Your task to perform on an android device: Toggle the flashlight Image 0: 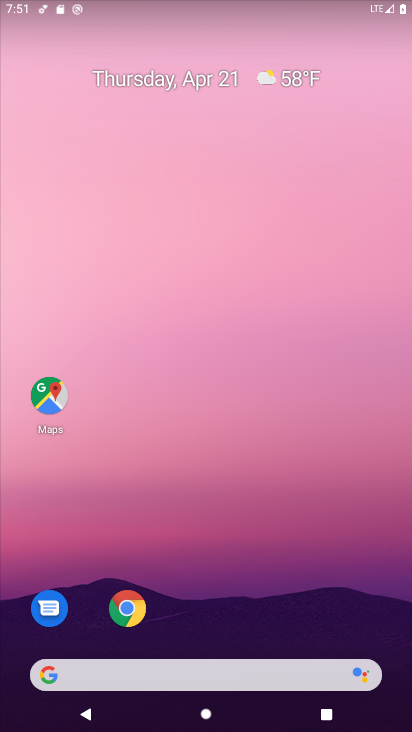
Step 0: drag from (279, 594) to (285, 83)
Your task to perform on an android device: Toggle the flashlight Image 1: 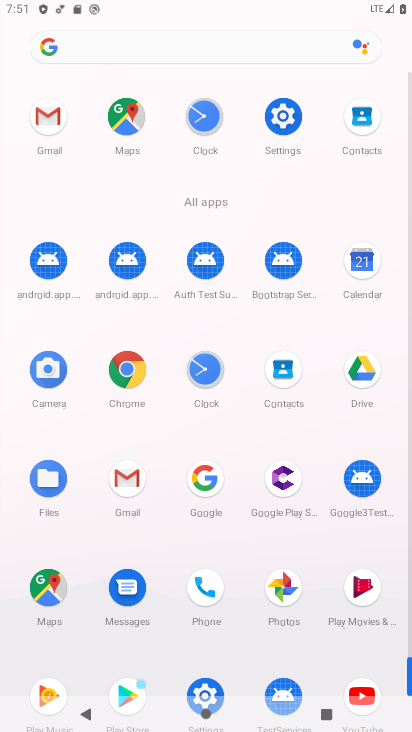
Step 1: click (280, 118)
Your task to perform on an android device: Toggle the flashlight Image 2: 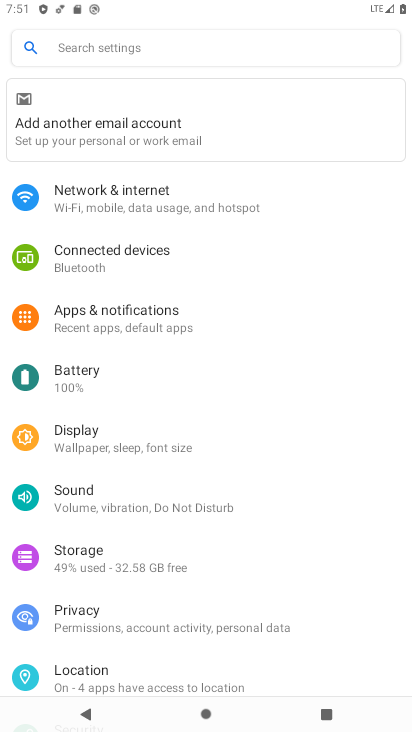
Step 2: click (277, 44)
Your task to perform on an android device: Toggle the flashlight Image 3: 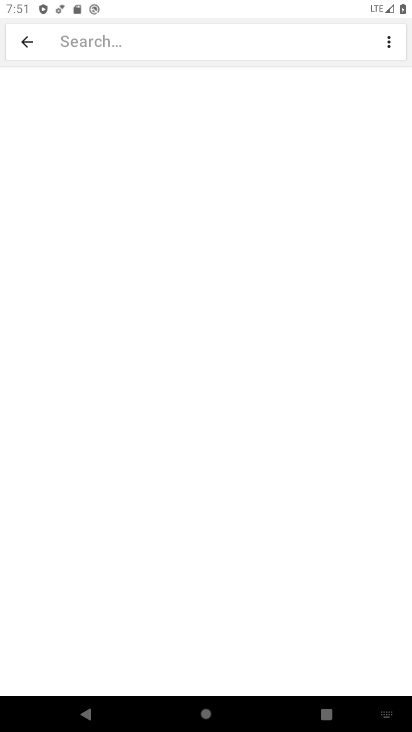
Step 3: type "Flashlight"
Your task to perform on an android device: Toggle the flashlight Image 4: 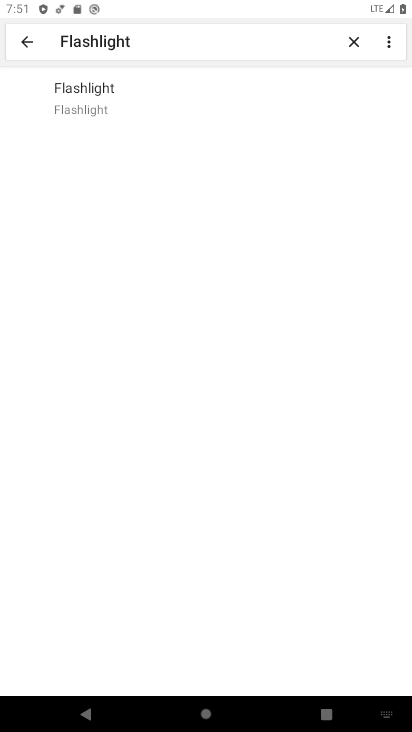
Step 4: click (92, 92)
Your task to perform on an android device: Toggle the flashlight Image 5: 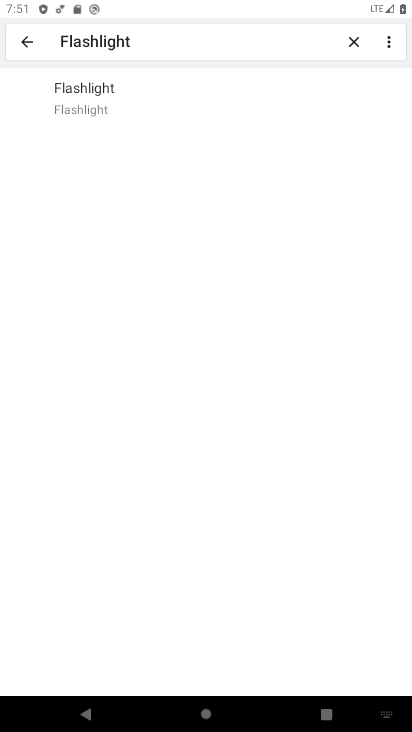
Step 5: task complete